Your task to perform on an android device: make emails show in primary in the gmail app Image 0: 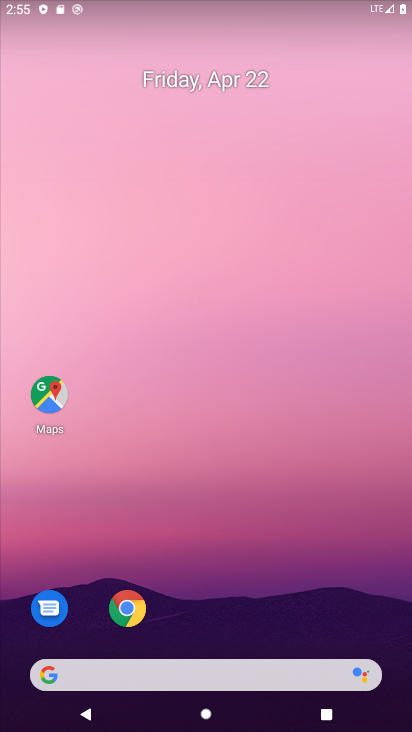
Step 0: drag from (229, 700) to (244, 242)
Your task to perform on an android device: make emails show in primary in the gmail app Image 1: 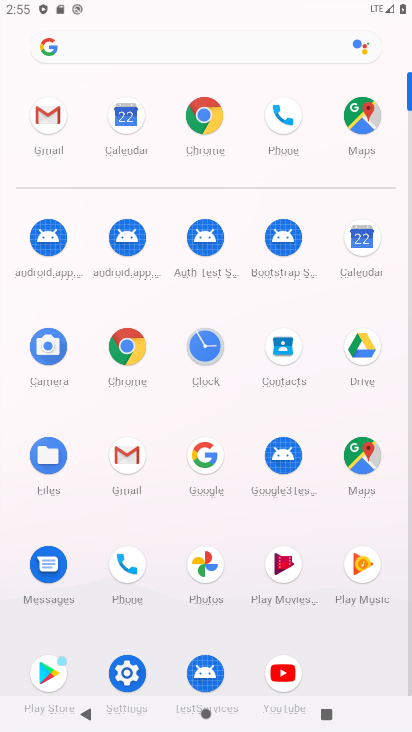
Step 1: click (53, 132)
Your task to perform on an android device: make emails show in primary in the gmail app Image 2: 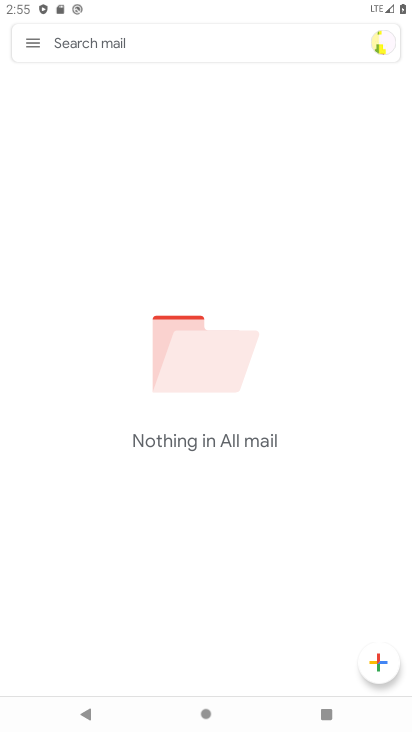
Step 2: click (31, 37)
Your task to perform on an android device: make emails show in primary in the gmail app Image 3: 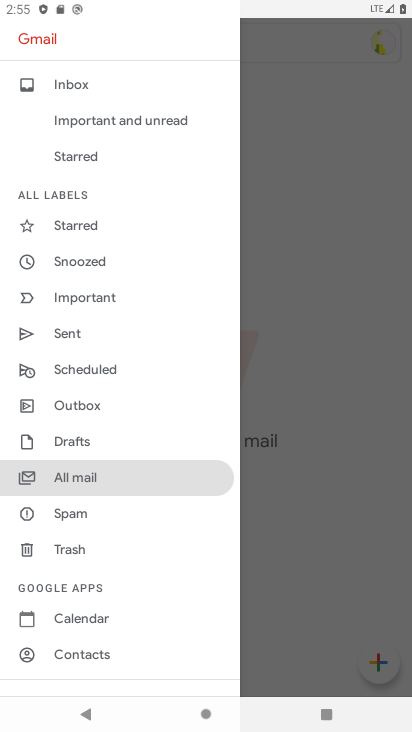
Step 3: drag from (101, 614) to (123, 510)
Your task to perform on an android device: make emails show in primary in the gmail app Image 4: 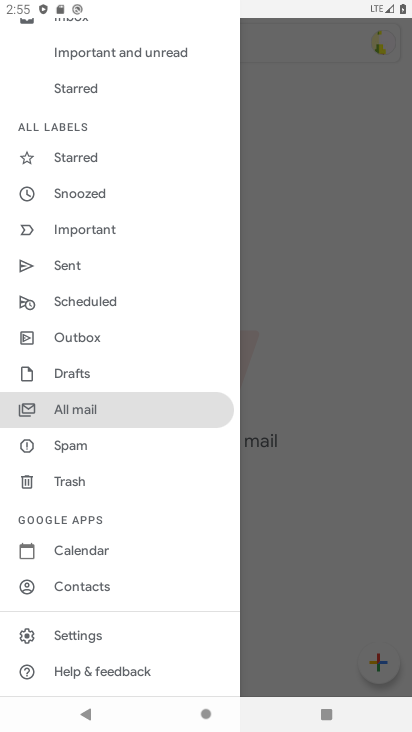
Step 4: click (77, 630)
Your task to perform on an android device: make emails show in primary in the gmail app Image 5: 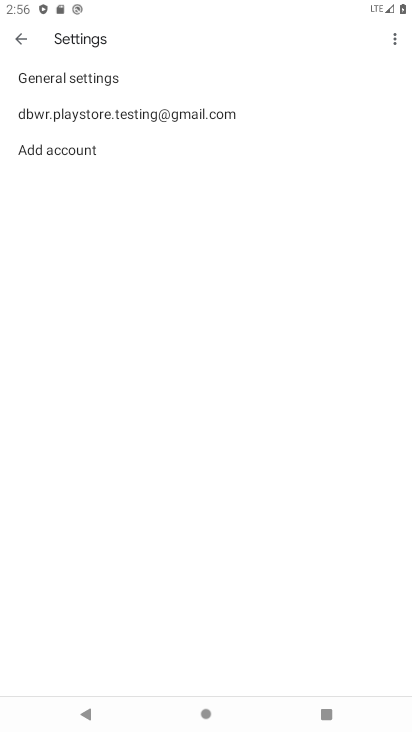
Step 5: click (148, 116)
Your task to perform on an android device: make emails show in primary in the gmail app Image 6: 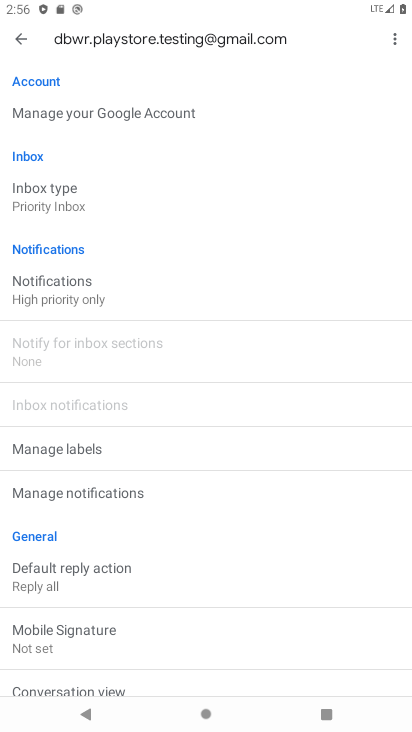
Step 6: click (72, 200)
Your task to perform on an android device: make emails show in primary in the gmail app Image 7: 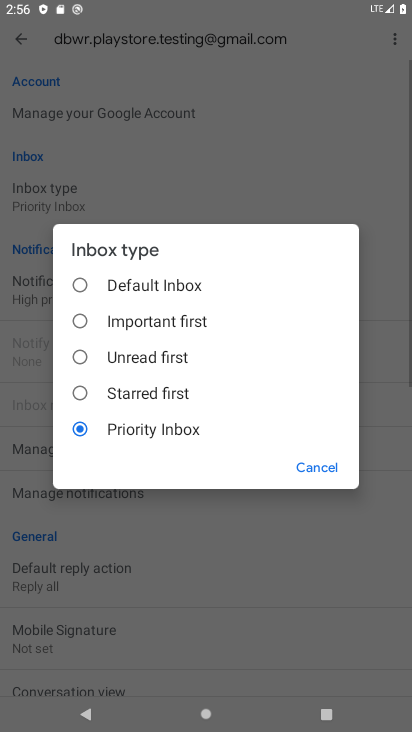
Step 7: click (99, 281)
Your task to perform on an android device: make emails show in primary in the gmail app Image 8: 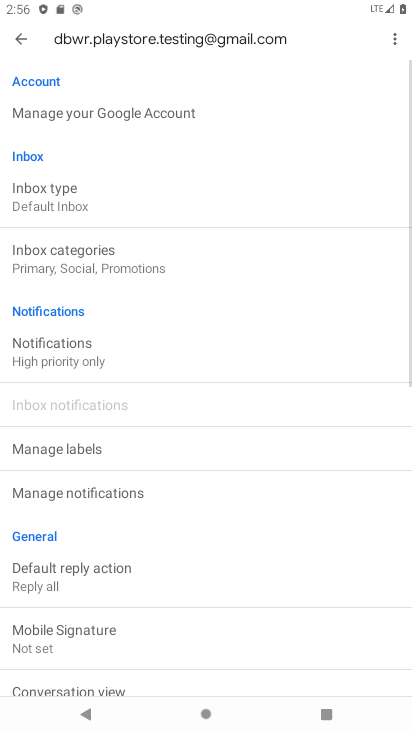
Step 8: click (105, 268)
Your task to perform on an android device: make emails show in primary in the gmail app Image 9: 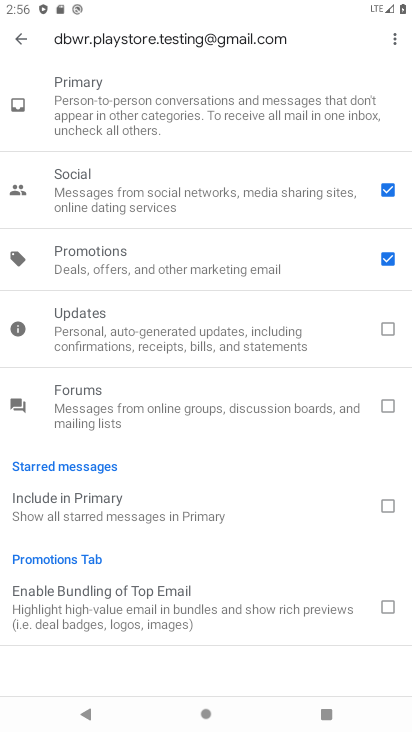
Step 9: click (386, 271)
Your task to perform on an android device: make emails show in primary in the gmail app Image 10: 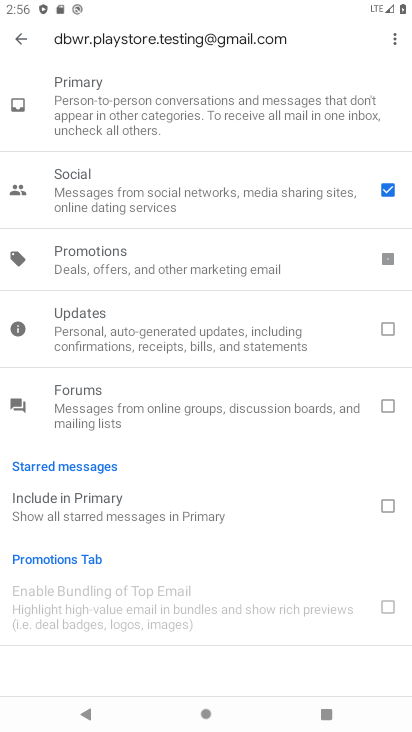
Step 10: click (389, 182)
Your task to perform on an android device: make emails show in primary in the gmail app Image 11: 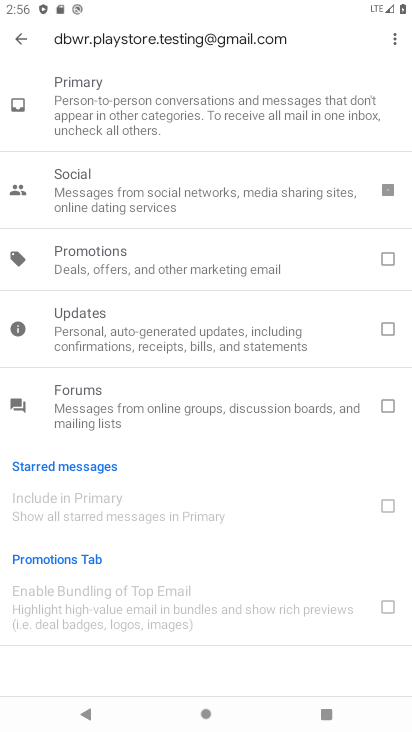
Step 11: click (231, 79)
Your task to perform on an android device: make emails show in primary in the gmail app Image 12: 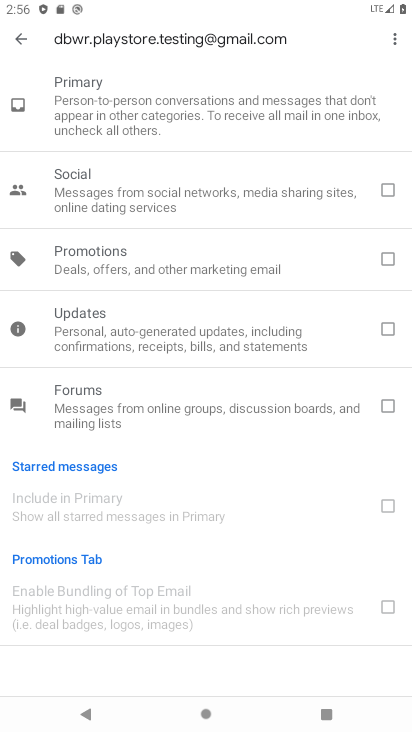
Step 12: task complete